Your task to perform on an android device: Go to Amazon Image 0: 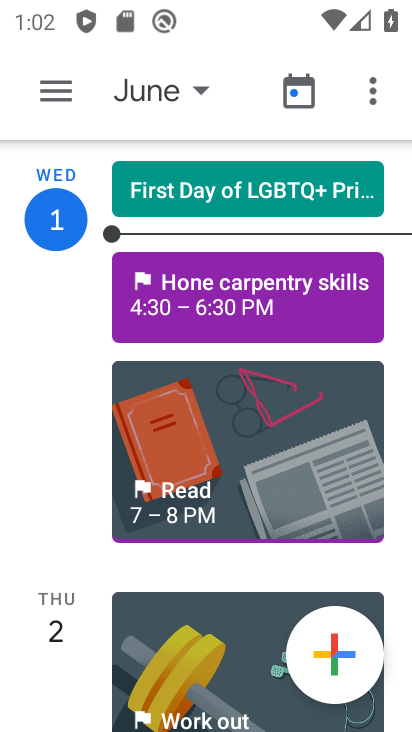
Step 0: press home button
Your task to perform on an android device: Go to Amazon Image 1: 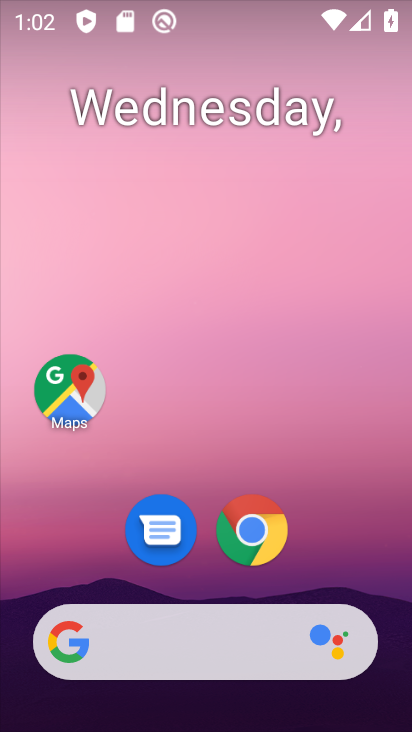
Step 1: click (259, 533)
Your task to perform on an android device: Go to Amazon Image 2: 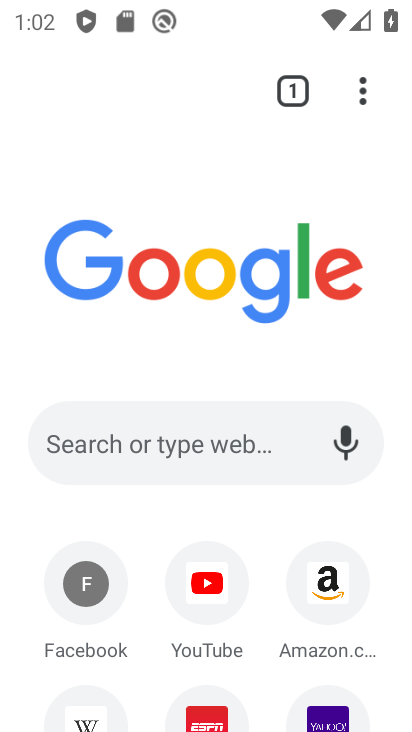
Step 2: click (346, 557)
Your task to perform on an android device: Go to Amazon Image 3: 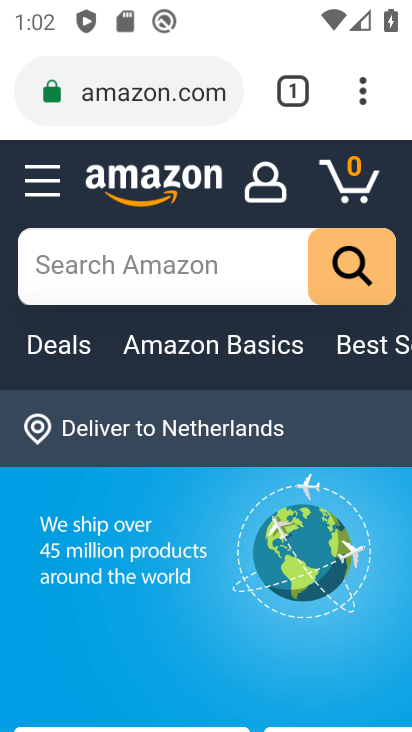
Step 3: task complete